Your task to perform on an android device: Open Google Maps Image 0: 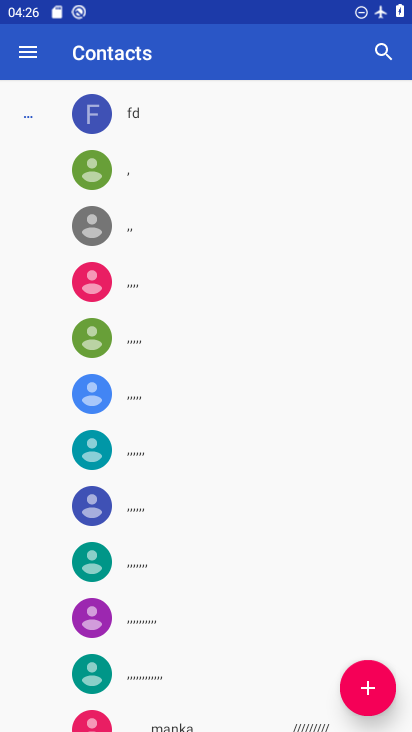
Step 0: press back button
Your task to perform on an android device: Open Google Maps Image 1: 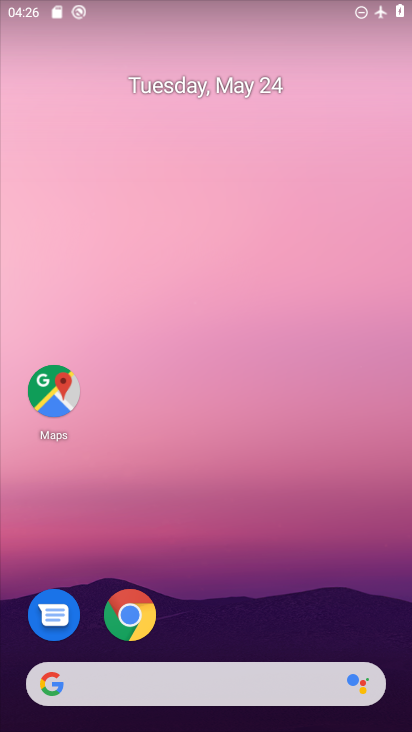
Step 1: drag from (249, 536) to (231, 15)
Your task to perform on an android device: Open Google Maps Image 2: 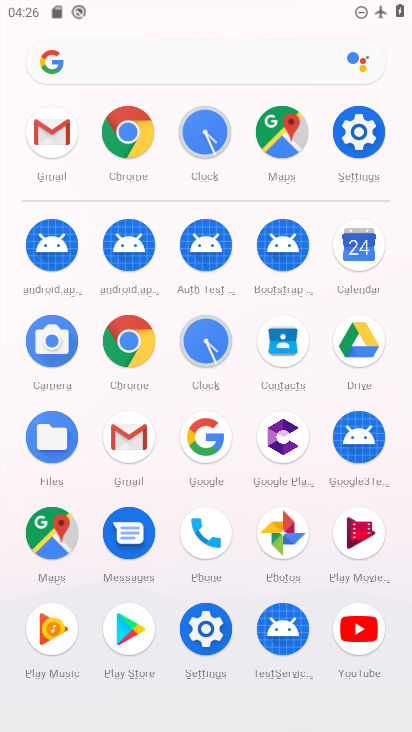
Step 2: click (278, 127)
Your task to perform on an android device: Open Google Maps Image 3: 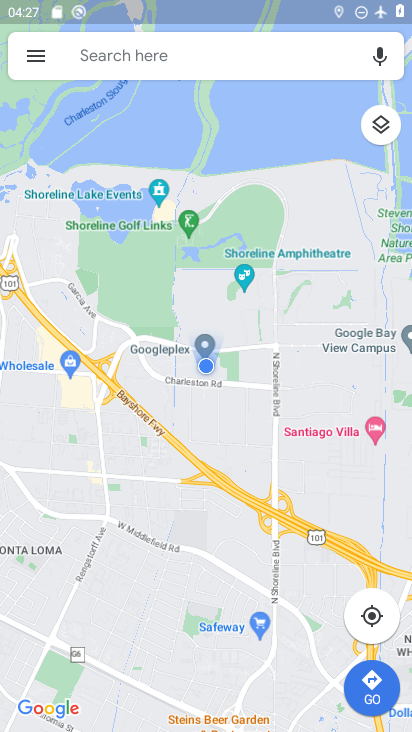
Step 3: task complete